Your task to perform on an android device: Is it going to rain today? Image 0: 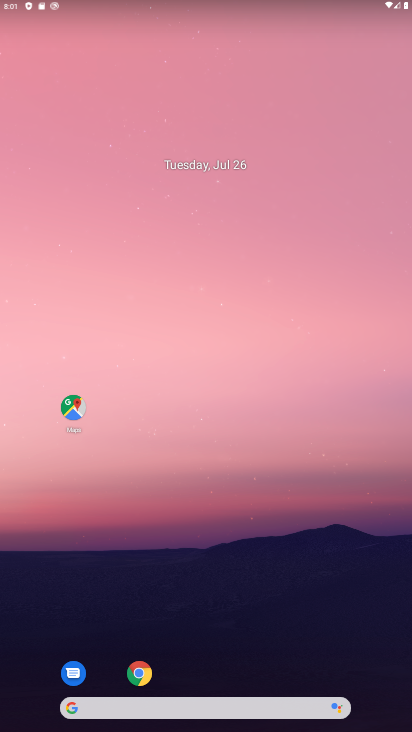
Step 0: click (139, 678)
Your task to perform on an android device: Is it going to rain today? Image 1: 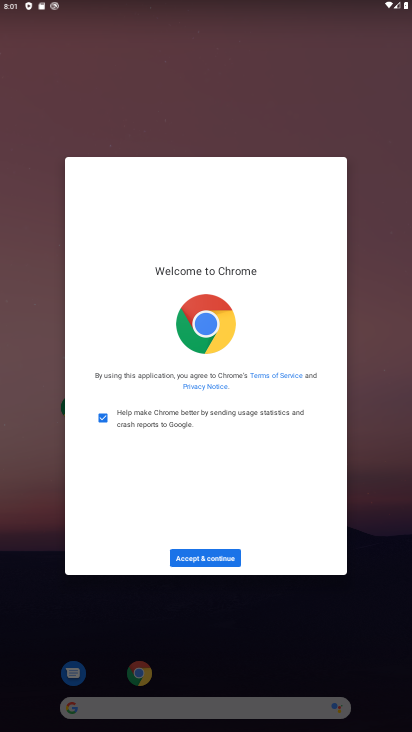
Step 1: click (212, 560)
Your task to perform on an android device: Is it going to rain today? Image 2: 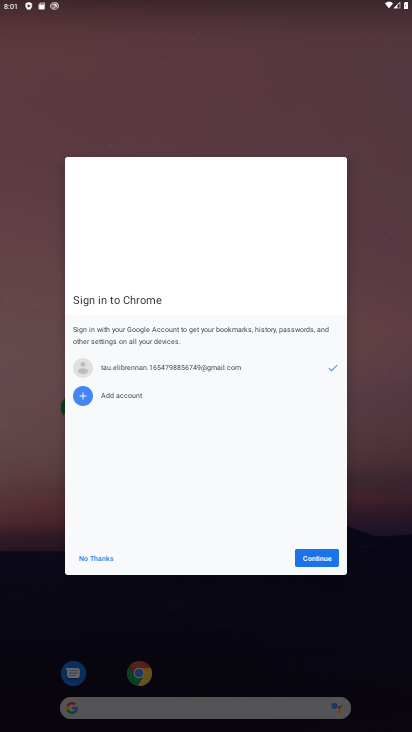
Step 2: click (320, 555)
Your task to perform on an android device: Is it going to rain today? Image 3: 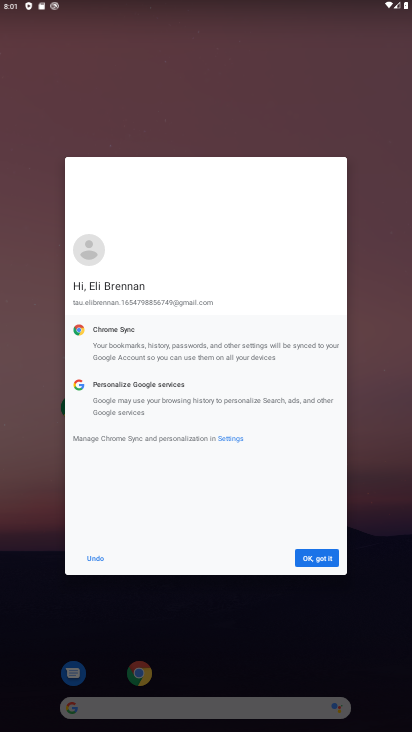
Step 3: click (320, 555)
Your task to perform on an android device: Is it going to rain today? Image 4: 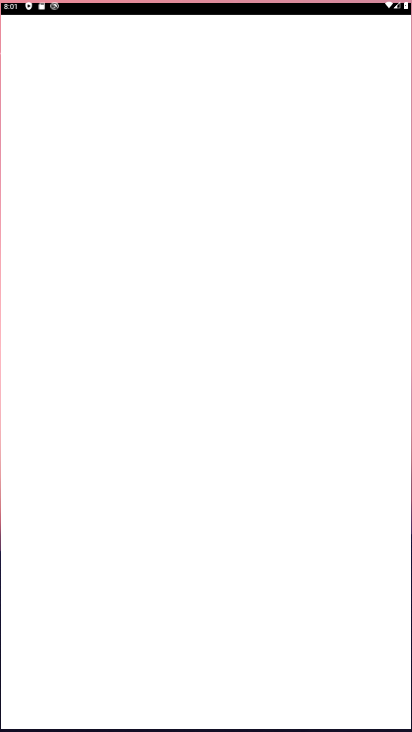
Step 4: click (320, 555)
Your task to perform on an android device: Is it going to rain today? Image 5: 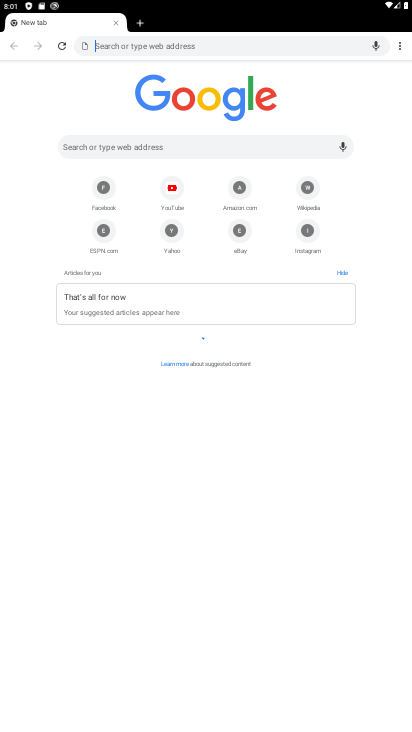
Step 5: click (166, 142)
Your task to perform on an android device: Is it going to rain today? Image 6: 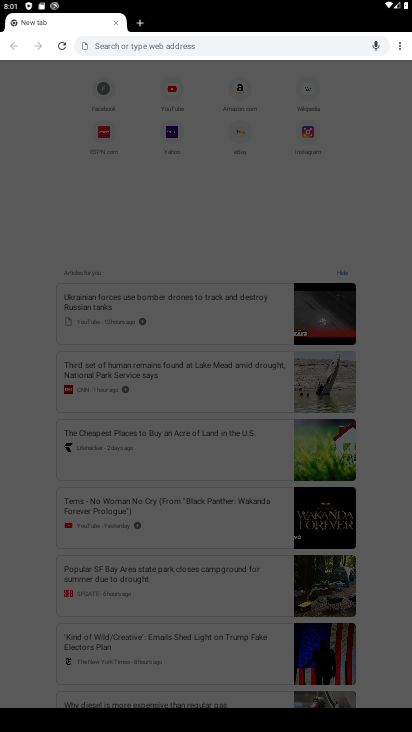
Step 6: type "Is it going to rain today?"
Your task to perform on an android device: Is it going to rain today? Image 7: 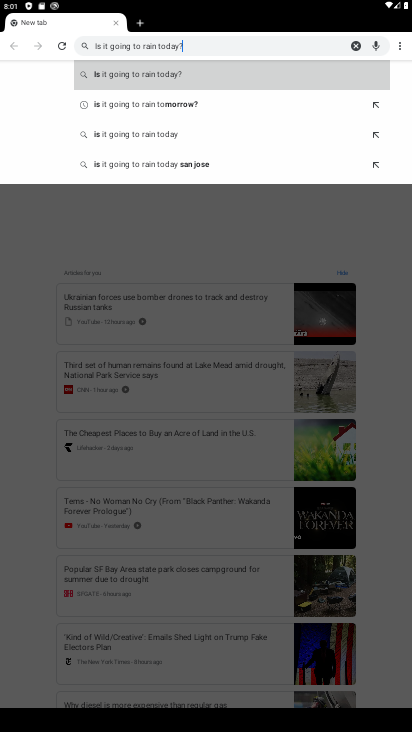
Step 7: type ""
Your task to perform on an android device: Is it going to rain today? Image 8: 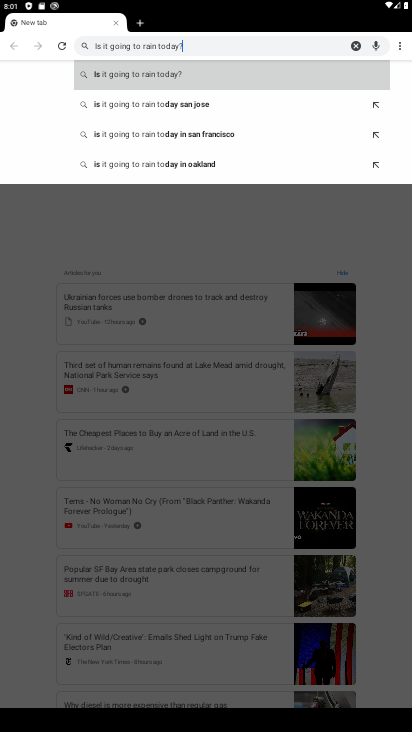
Step 8: click (180, 80)
Your task to perform on an android device: Is it going to rain today? Image 9: 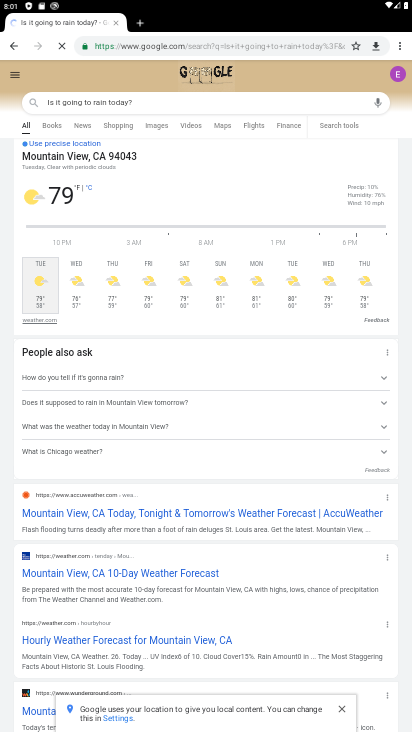
Step 9: task complete